Your task to perform on an android device: Go to calendar. Show me events next week Image 0: 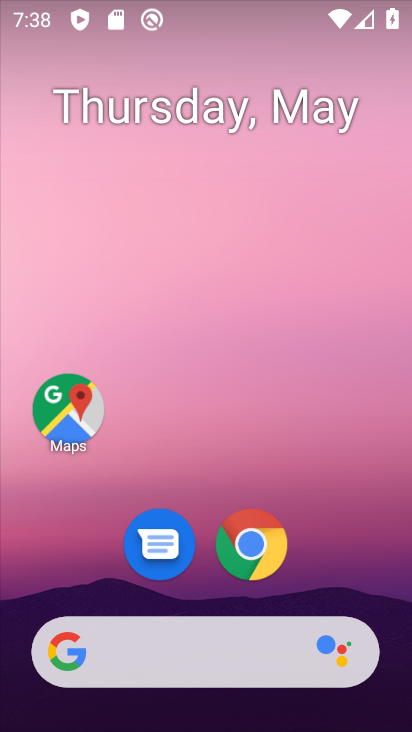
Step 0: drag from (228, 514) to (208, 304)
Your task to perform on an android device: Go to calendar. Show me events next week Image 1: 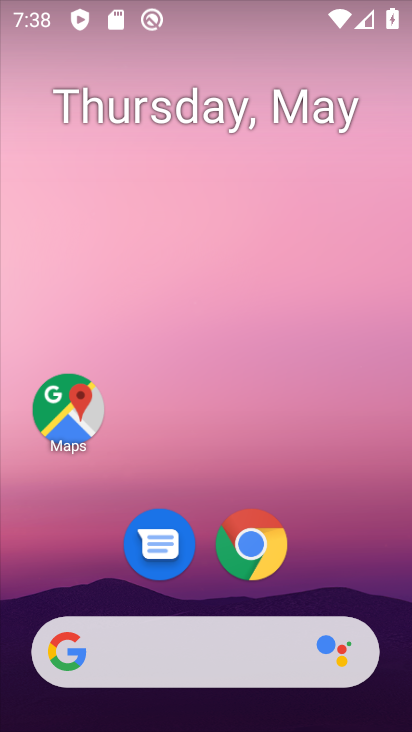
Step 1: drag from (194, 600) to (245, 224)
Your task to perform on an android device: Go to calendar. Show me events next week Image 2: 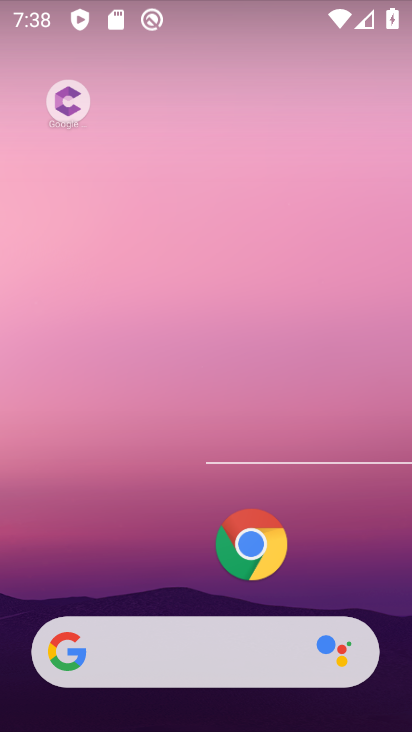
Step 2: drag from (186, 605) to (185, 51)
Your task to perform on an android device: Go to calendar. Show me events next week Image 3: 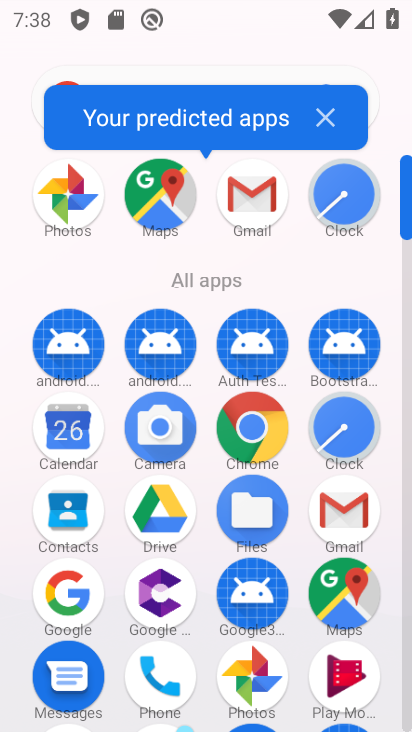
Step 3: click (68, 430)
Your task to perform on an android device: Go to calendar. Show me events next week Image 4: 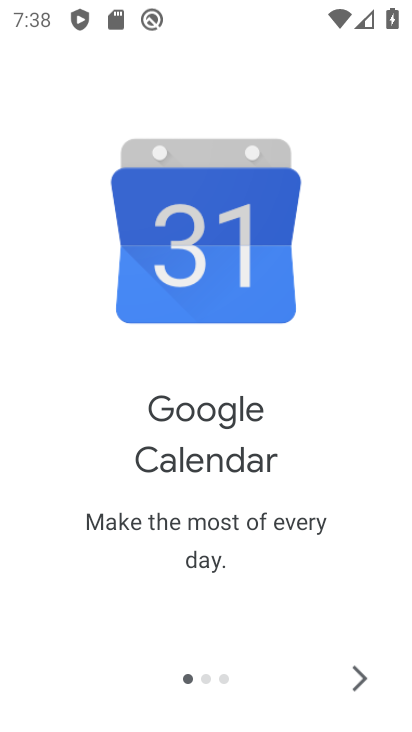
Step 4: click (356, 672)
Your task to perform on an android device: Go to calendar. Show me events next week Image 5: 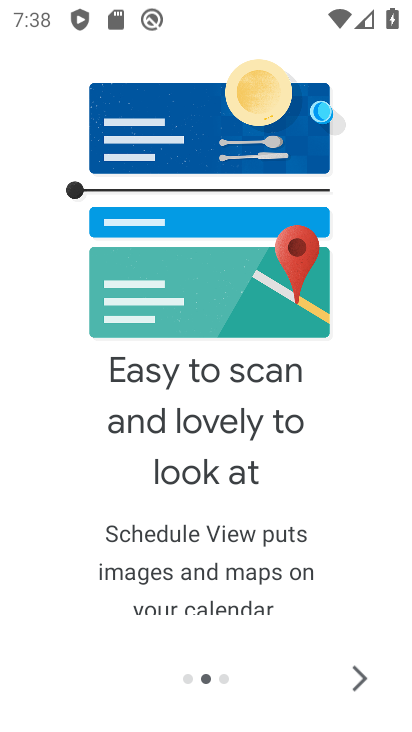
Step 5: click (353, 669)
Your task to perform on an android device: Go to calendar. Show me events next week Image 6: 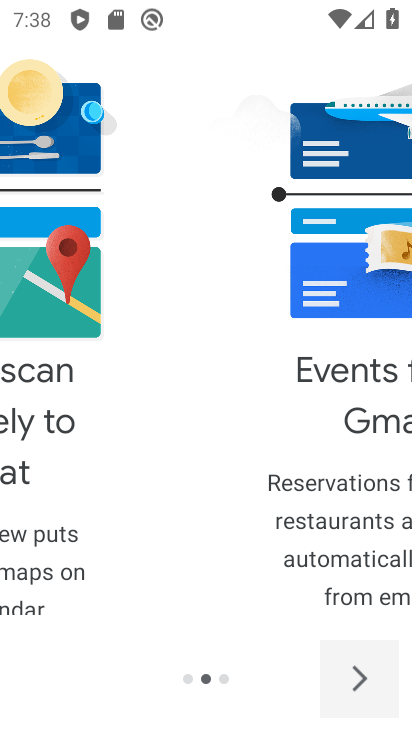
Step 6: click (350, 665)
Your task to perform on an android device: Go to calendar. Show me events next week Image 7: 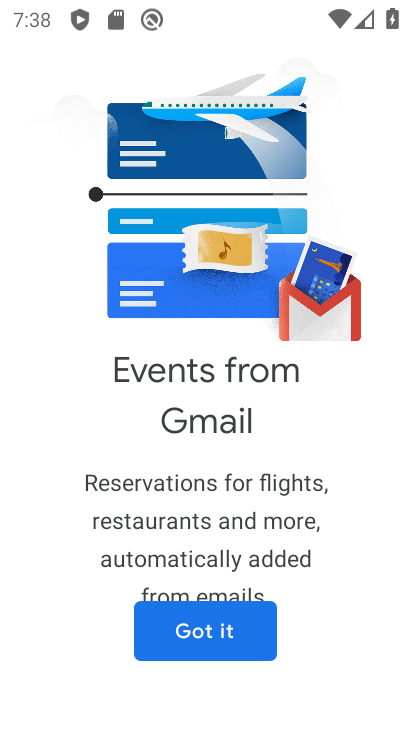
Step 7: click (192, 629)
Your task to perform on an android device: Go to calendar. Show me events next week Image 8: 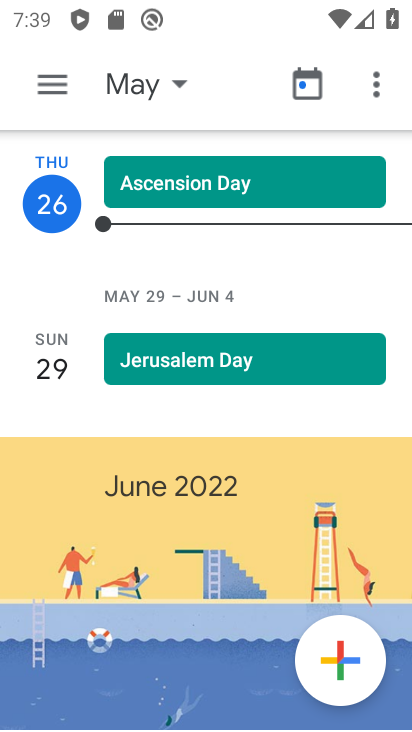
Step 8: click (179, 88)
Your task to perform on an android device: Go to calendar. Show me events next week Image 9: 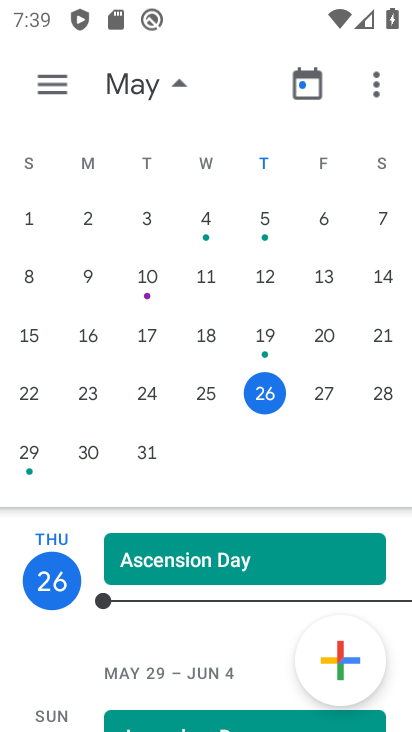
Step 9: click (21, 453)
Your task to perform on an android device: Go to calendar. Show me events next week Image 10: 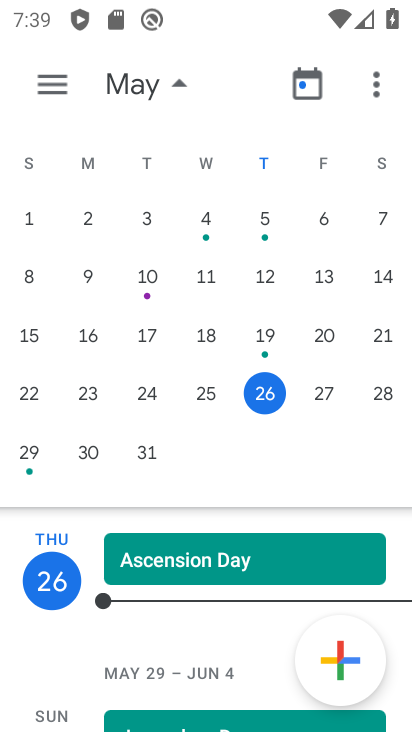
Step 10: click (84, 466)
Your task to perform on an android device: Go to calendar. Show me events next week Image 11: 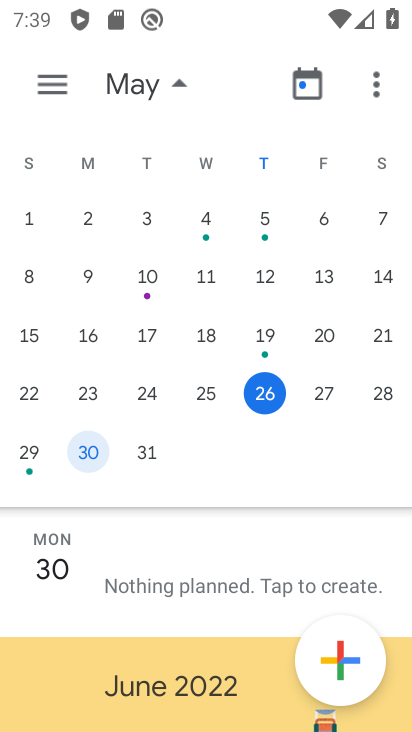
Step 11: click (172, 470)
Your task to perform on an android device: Go to calendar. Show me events next week Image 12: 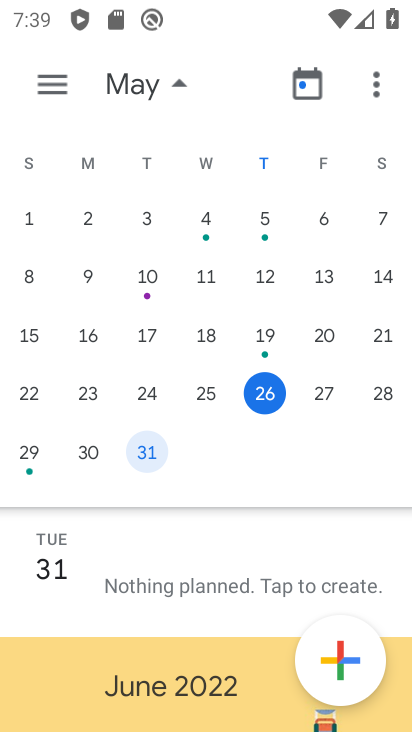
Step 12: drag from (373, 435) to (14, 427)
Your task to perform on an android device: Go to calendar. Show me events next week Image 13: 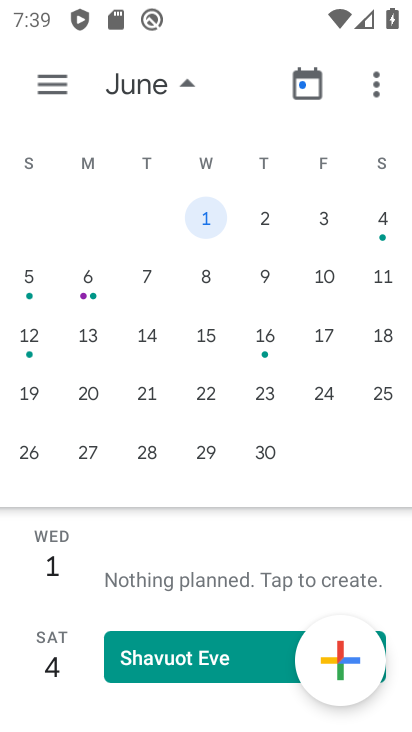
Step 13: click (234, 228)
Your task to perform on an android device: Go to calendar. Show me events next week Image 14: 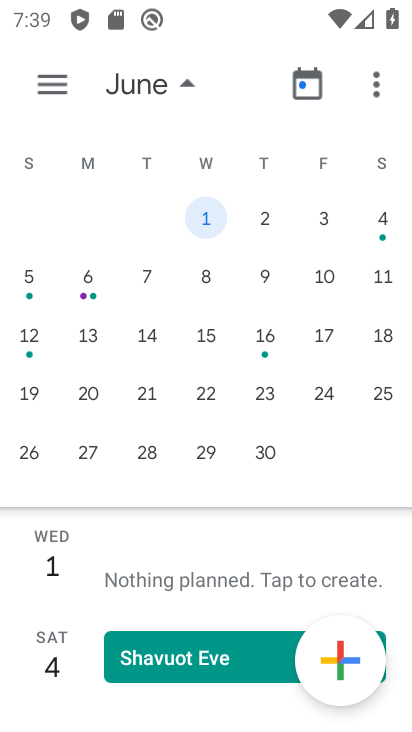
Step 14: click (252, 225)
Your task to perform on an android device: Go to calendar. Show me events next week Image 15: 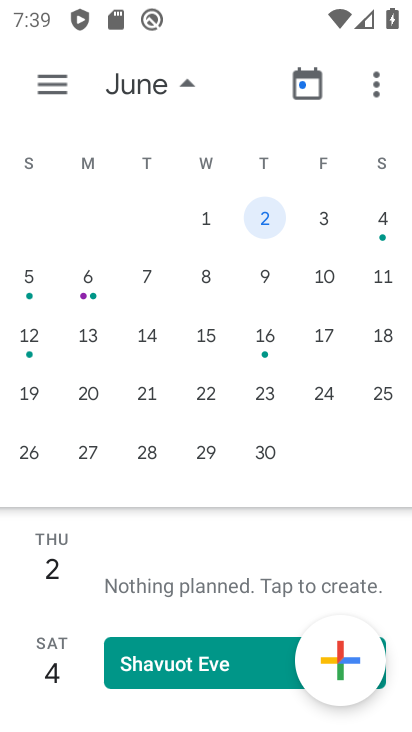
Step 15: click (314, 230)
Your task to perform on an android device: Go to calendar. Show me events next week Image 16: 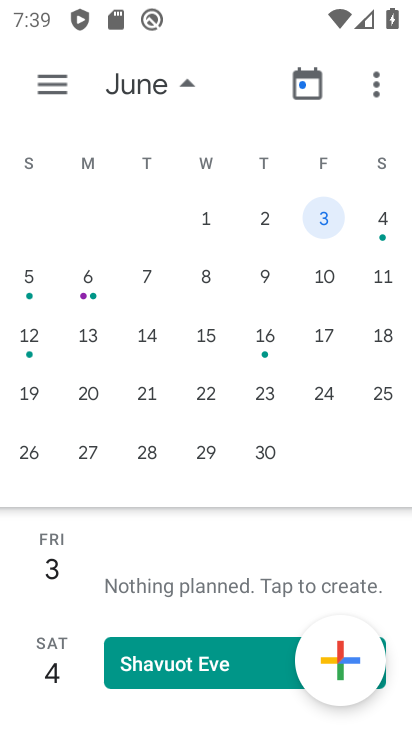
Step 16: click (375, 212)
Your task to perform on an android device: Go to calendar. Show me events next week Image 17: 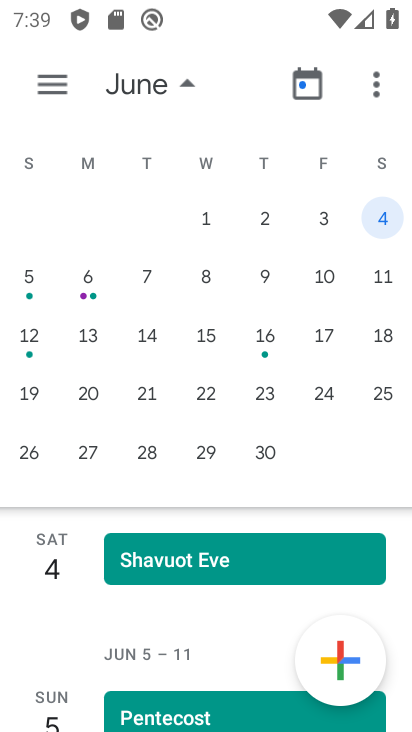
Step 17: task complete